Your task to perform on an android device: turn off smart reply in the gmail app Image 0: 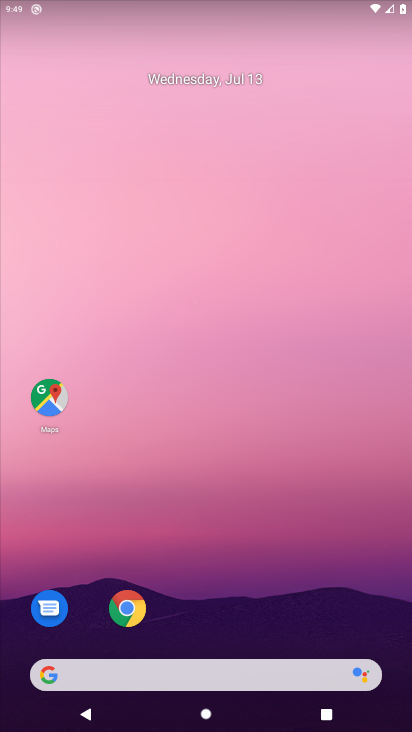
Step 0: drag from (57, 672) to (307, 12)
Your task to perform on an android device: turn off smart reply in the gmail app Image 1: 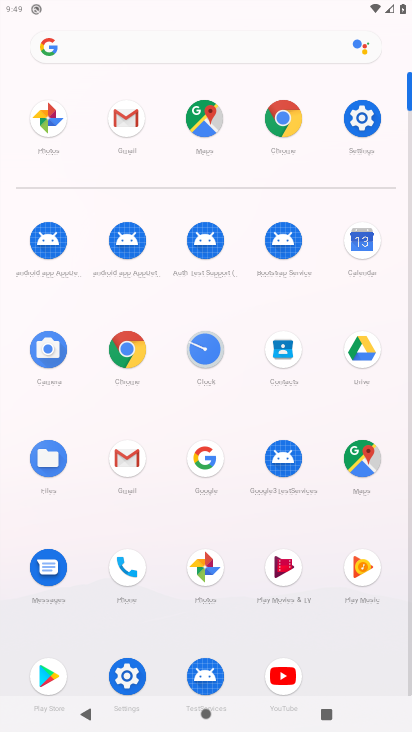
Step 1: click (121, 464)
Your task to perform on an android device: turn off smart reply in the gmail app Image 2: 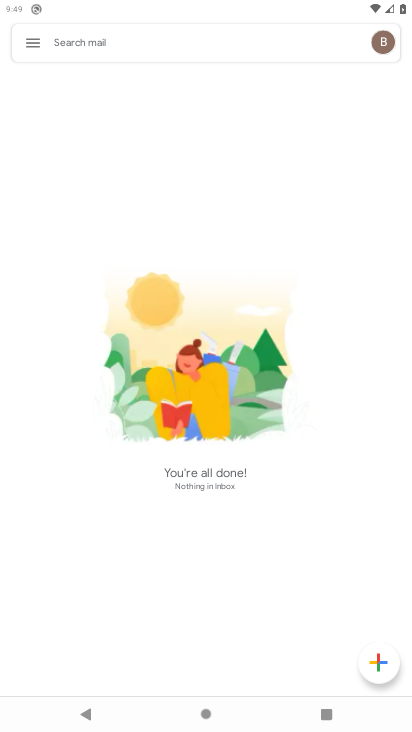
Step 2: click (33, 41)
Your task to perform on an android device: turn off smart reply in the gmail app Image 3: 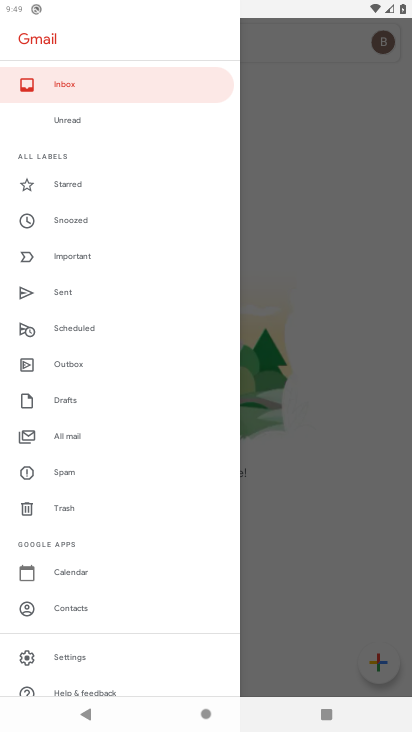
Step 3: click (68, 651)
Your task to perform on an android device: turn off smart reply in the gmail app Image 4: 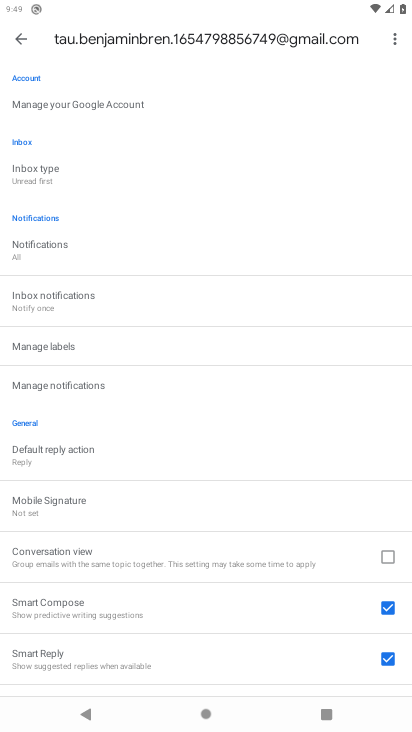
Step 4: drag from (220, 626) to (227, 387)
Your task to perform on an android device: turn off smart reply in the gmail app Image 5: 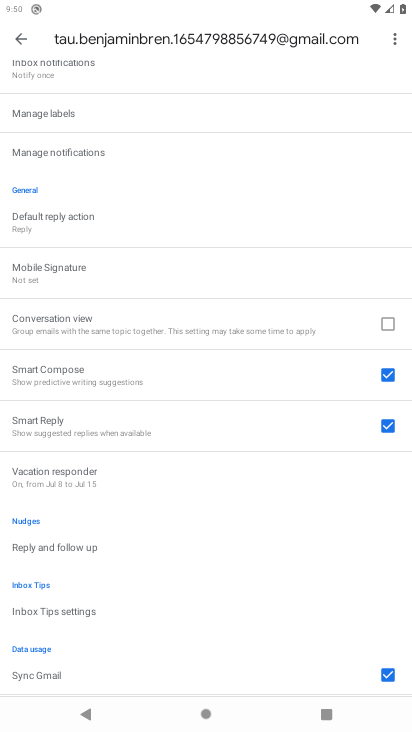
Step 5: click (382, 421)
Your task to perform on an android device: turn off smart reply in the gmail app Image 6: 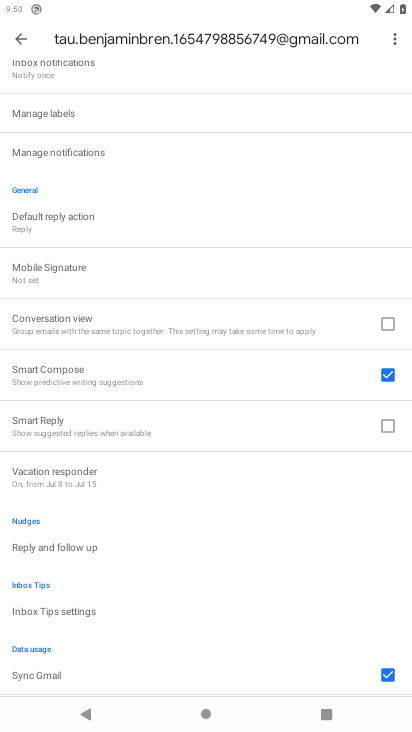
Step 6: task complete